Your task to perform on an android device: toggle data saver in the chrome app Image 0: 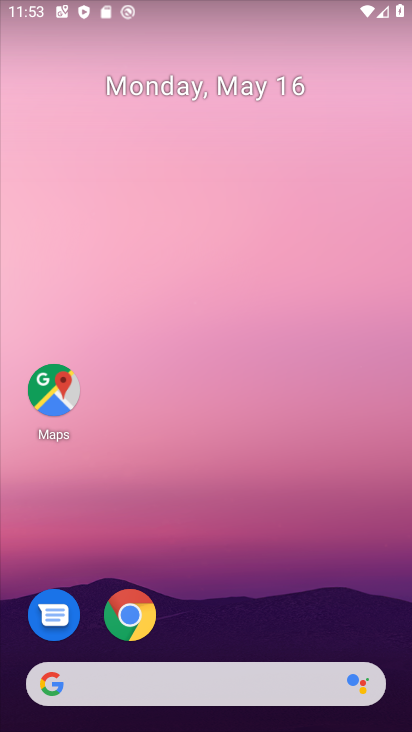
Step 0: click (130, 608)
Your task to perform on an android device: toggle data saver in the chrome app Image 1: 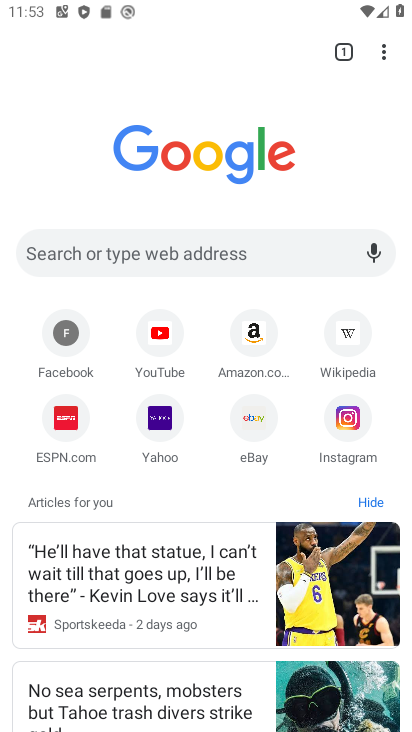
Step 1: click (386, 43)
Your task to perform on an android device: toggle data saver in the chrome app Image 2: 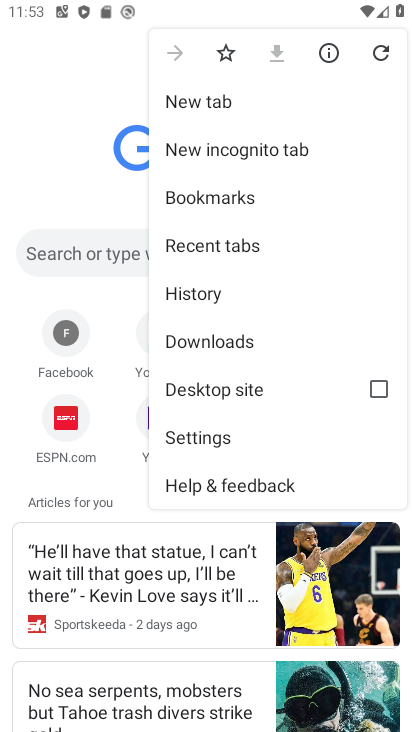
Step 2: click (221, 433)
Your task to perform on an android device: toggle data saver in the chrome app Image 3: 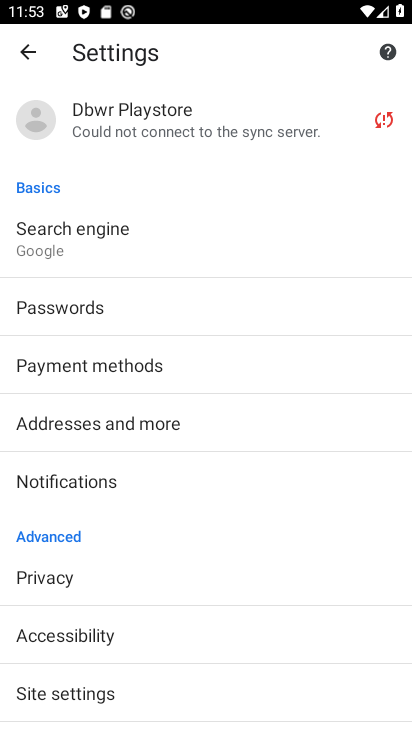
Step 3: click (74, 694)
Your task to perform on an android device: toggle data saver in the chrome app Image 4: 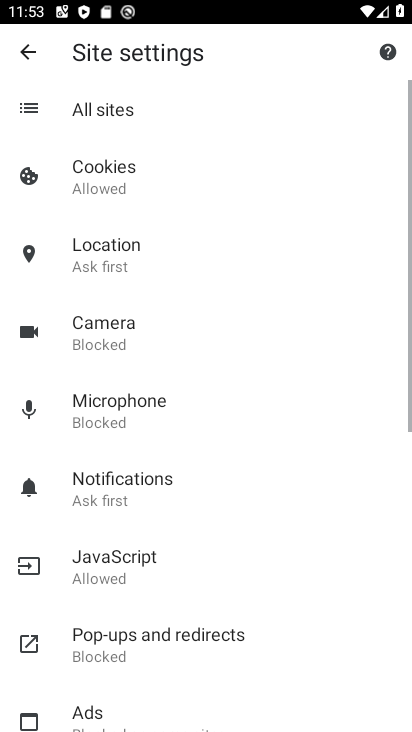
Step 4: click (36, 56)
Your task to perform on an android device: toggle data saver in the chrome app Image 5: 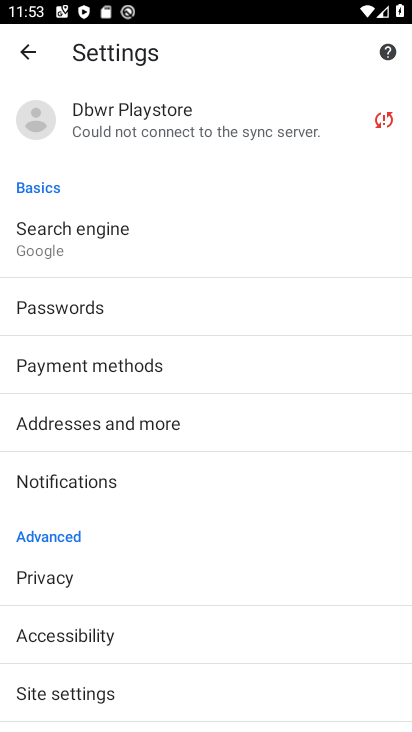
Step 5: drag from (92, 638) to (81, 417)
Your task to perform on an android device: toggle data saver in the chrome app Image 6: 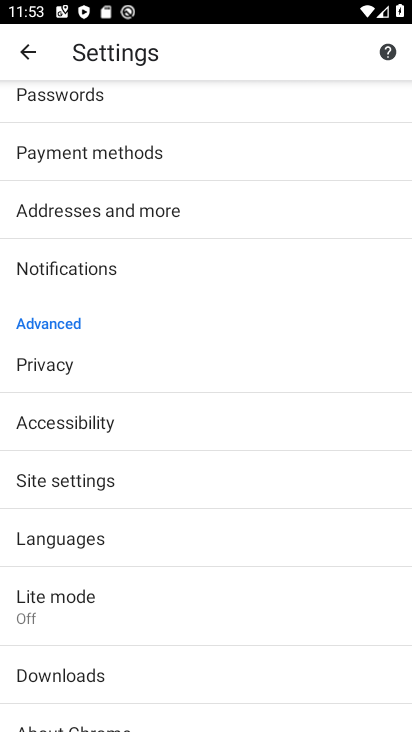
Step 6: click (80, 601)
Your task to perform on an android device: toggle data saver in the chrome app Image 7: 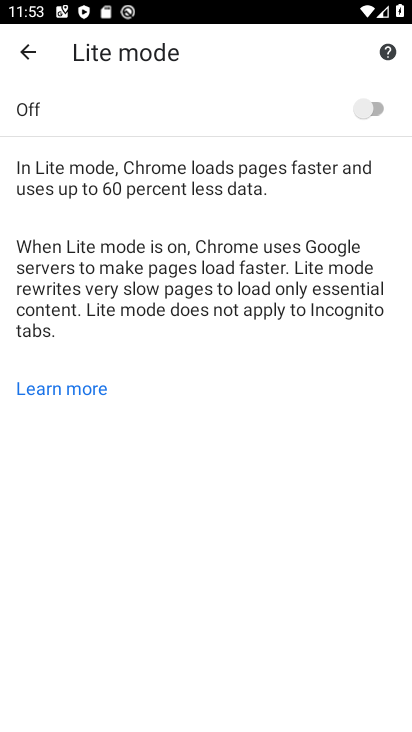
Step 7: click (368, 103)
Your task to perform on an android device: toggle data saver in the chrome app Image 8: 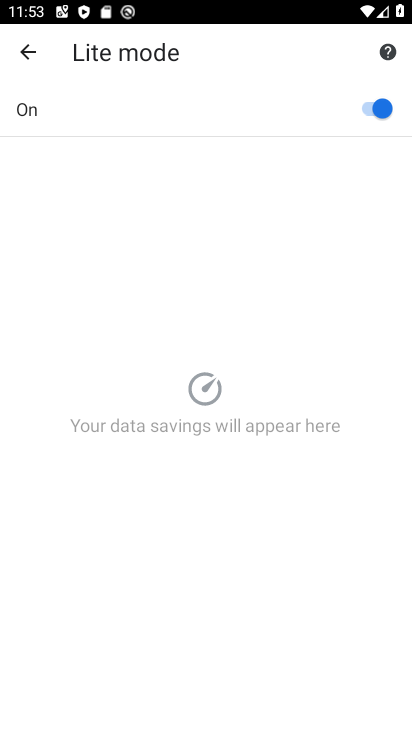
Step 8: task complete